Your task to perform on an android device: Look up the best rated bike on Walmart Image 0: 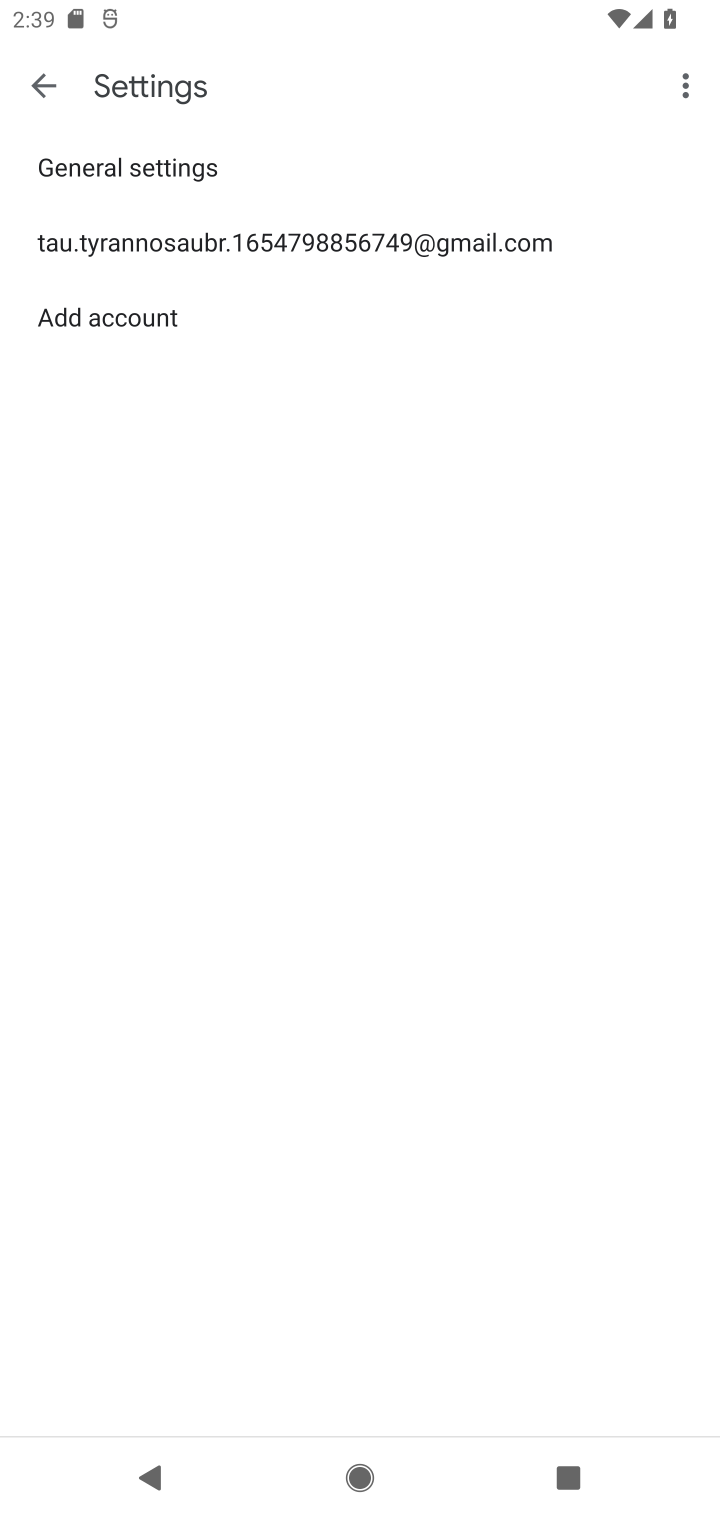
Step 0: press home button
Your task to perform on an android device: Look up the best rated bike on Walmart Image 1: 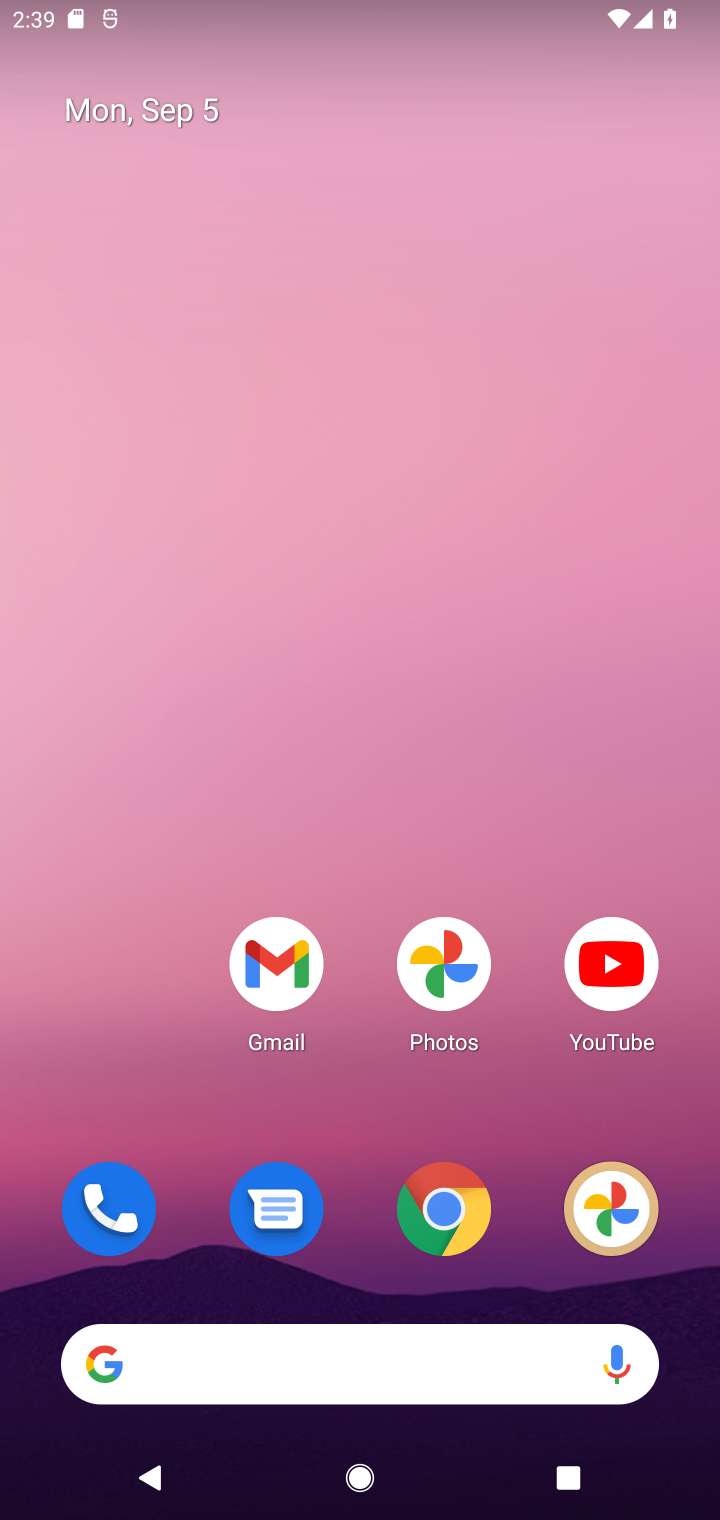
Step 1: drag from (327, 912) to (362, 450)
Your task to perform on an android device: Look up the best rated bike on Walmart Image 2: 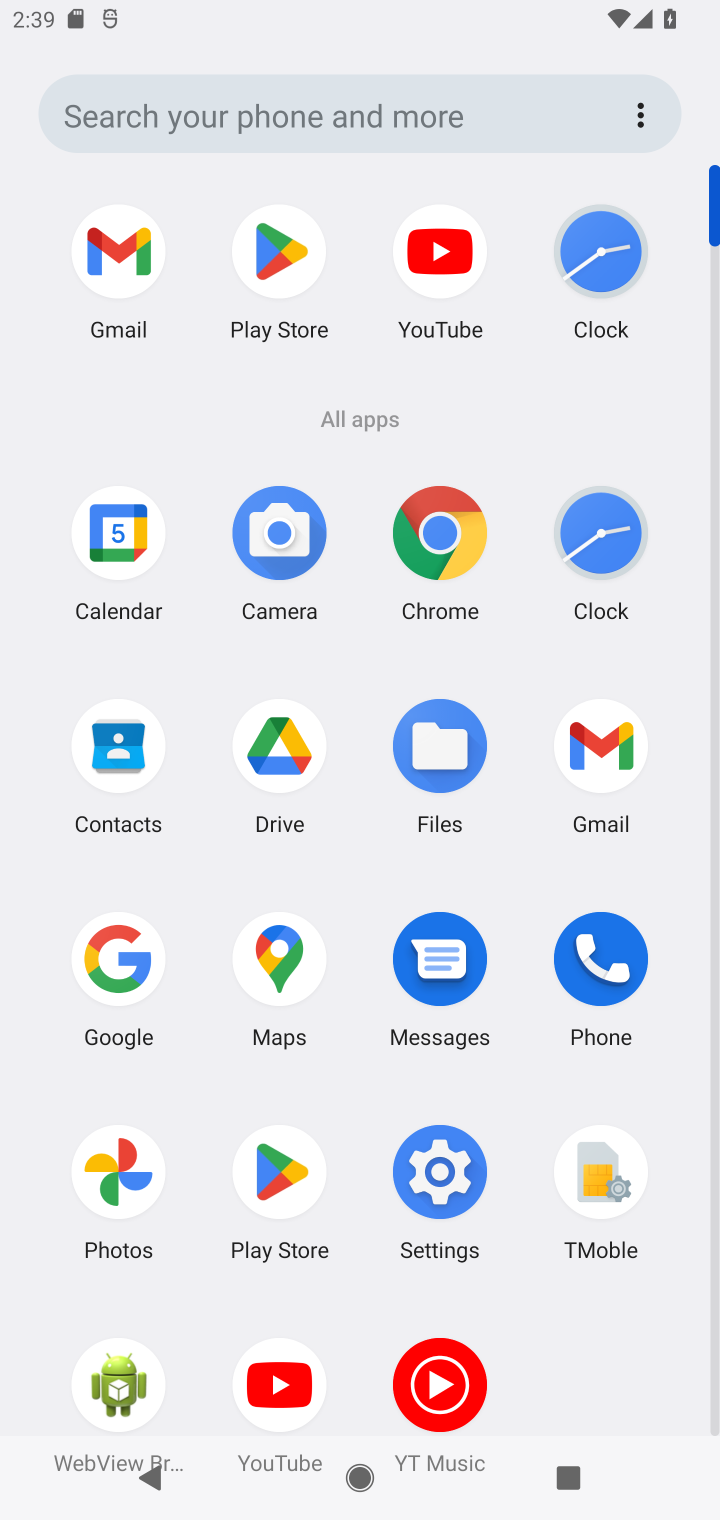
Step 2: click (132, 959)
Your task to perform on an android device: Look up the best rated bike on Walmart Image 3: 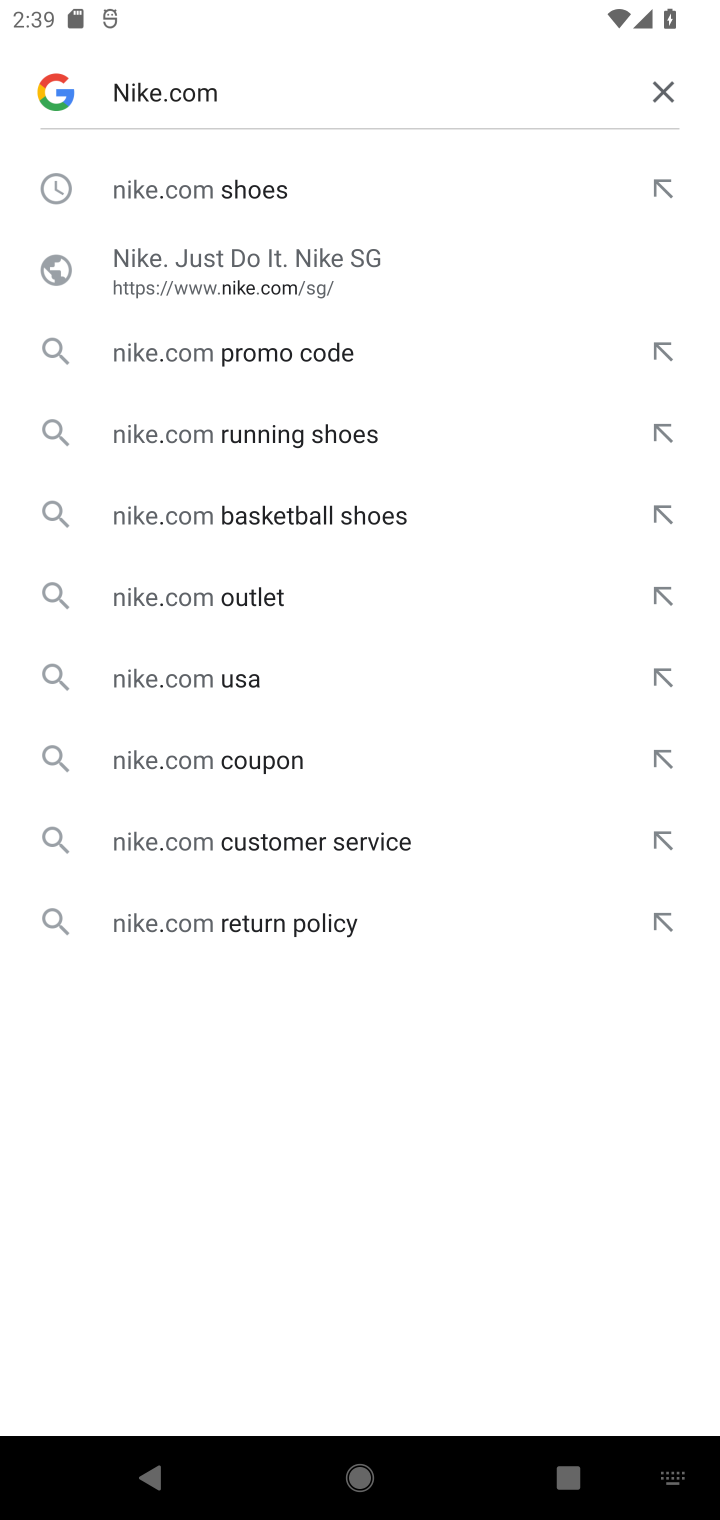
Step 3: click (669, 86)
Your task to perform on an android device: Look up the best rated bike on Walmart Image 4: 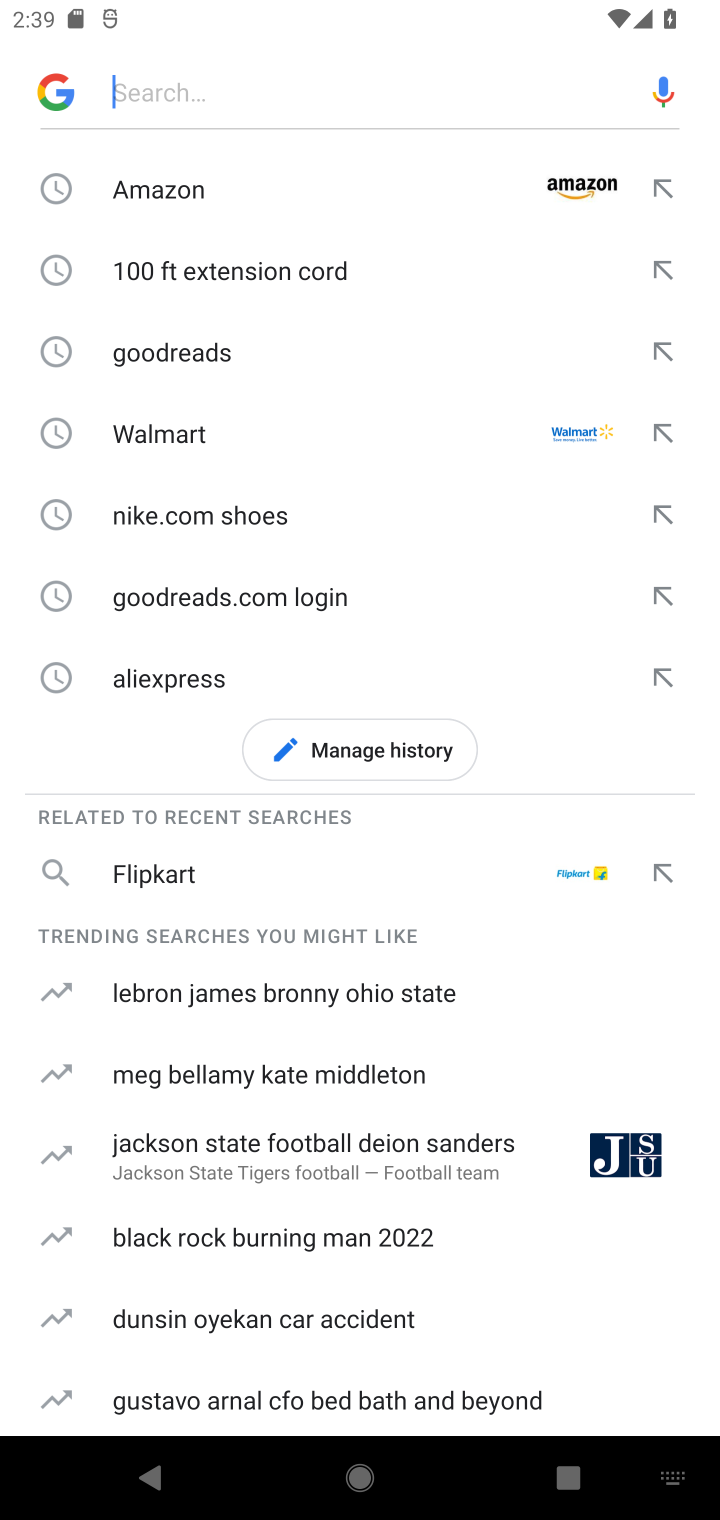
Step 4: click (173, 441)
Your task to perform on an android device: Look up the best rated bike on Walmart Image 5: 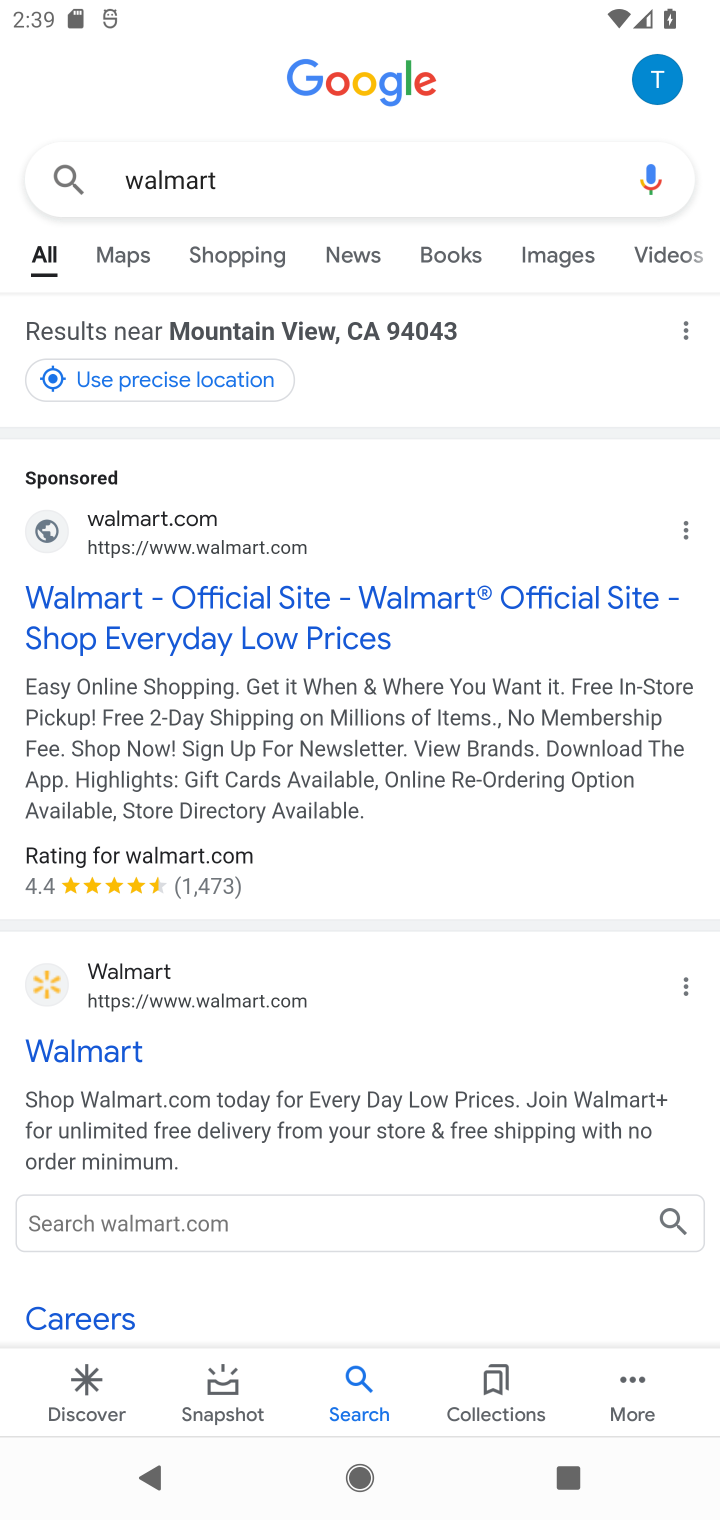
Step 5: click (113, 1066)
Your task to perform on an android device: Look up the best rated bike on Walmart Image 6: 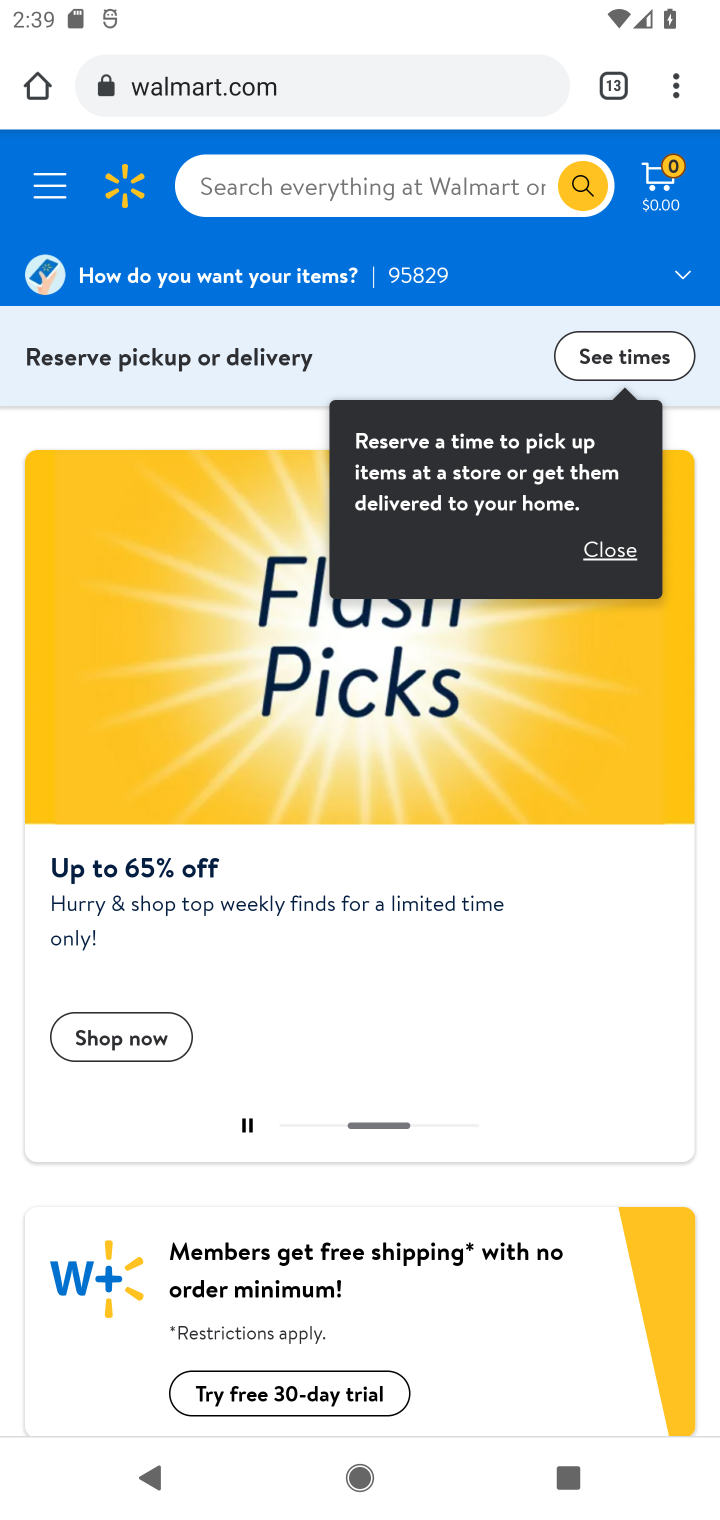
Step 6: click (430, 182)
Your task to perform on an android device: Look up the best rated bike on Walmart Image 7: 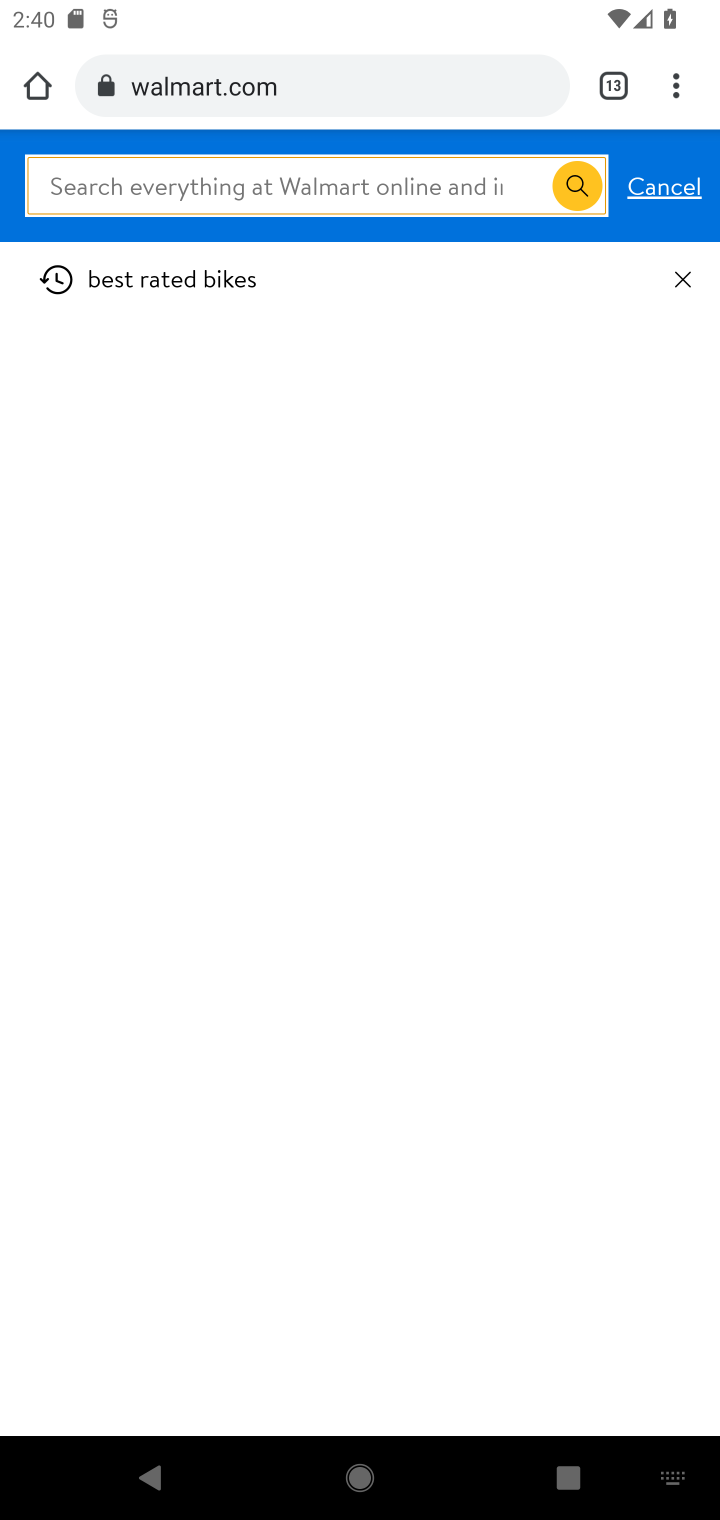
Step 7: click (163, 283)
Your task to perform on an android device: Look up the best rated bike on Walmart Image 8: 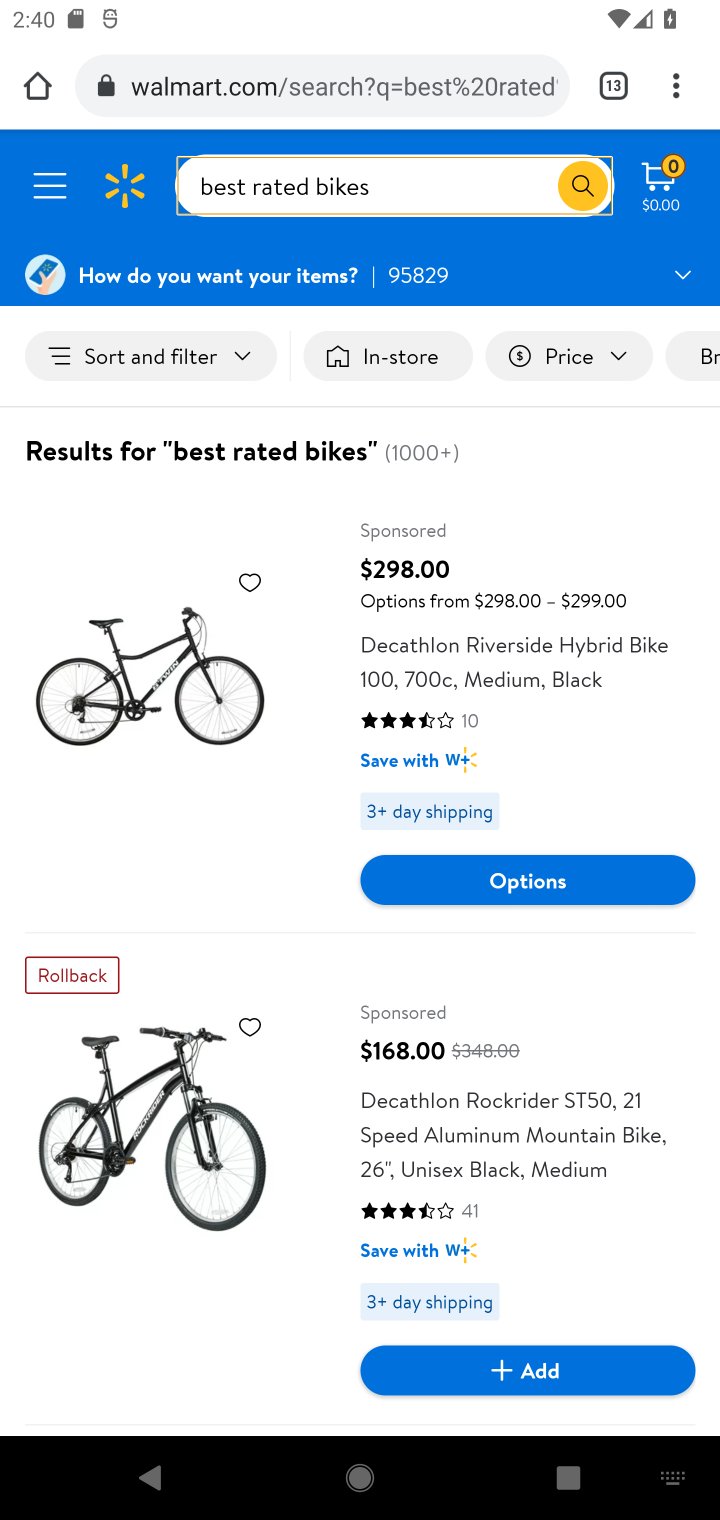
Step 8: click (382, 772)
Your task to perform on an android device: Look up the best rated bike on Walmart Image 9: 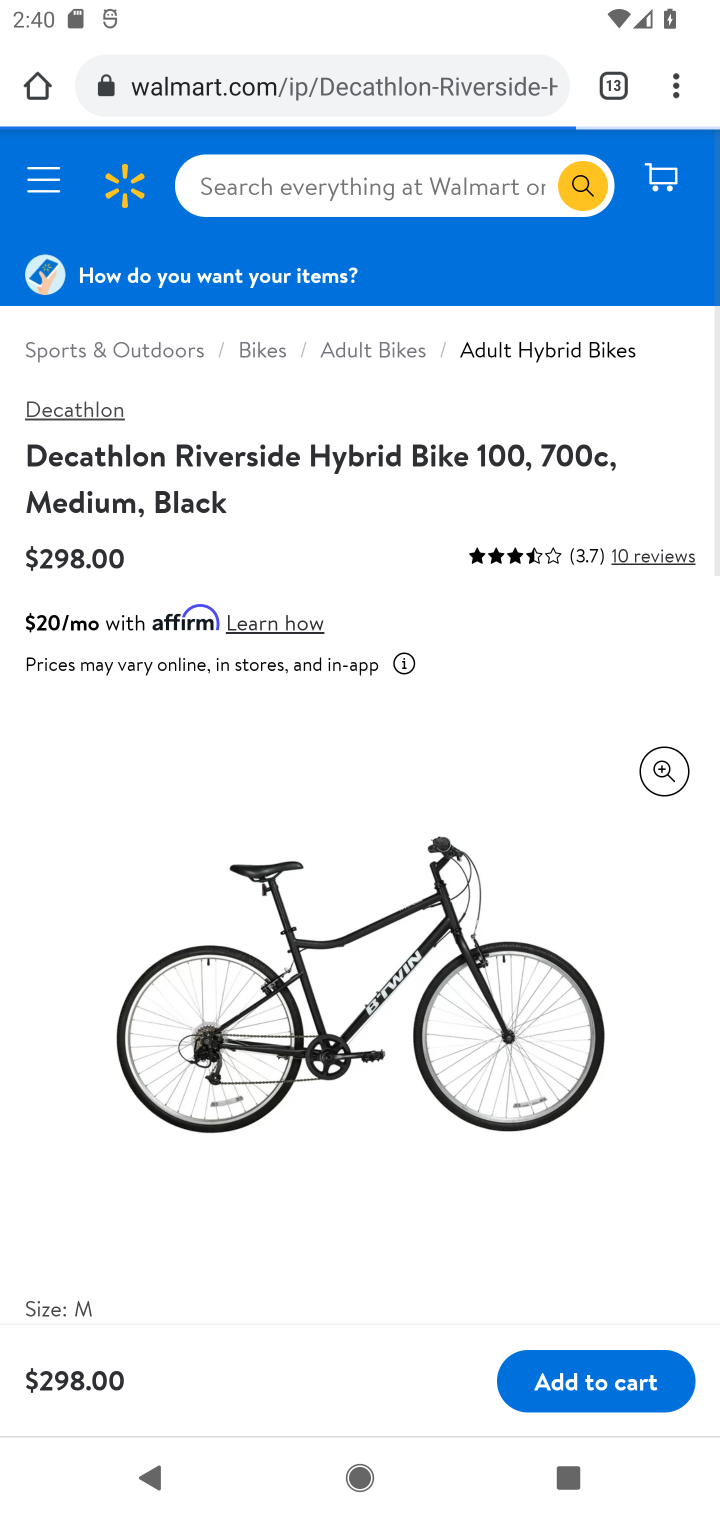
Step 9: task complete